Your task to perform on an android device: open wifi settings Image 0: 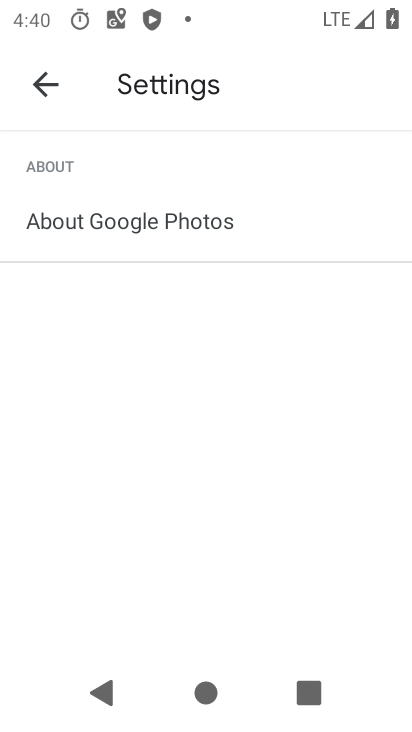
Step 0: press home button
Your task to perform on an android device: open wifi settings Image 1: 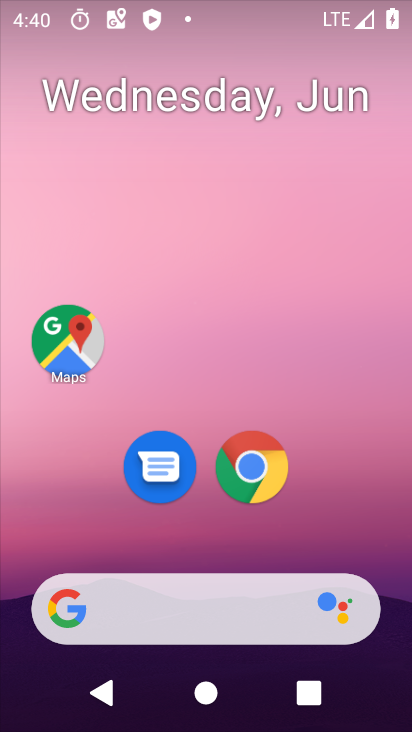
Step 1: drag from (333, 455) to (278, 32)
Your task to perform on an android device: open wifi settings Image 2: 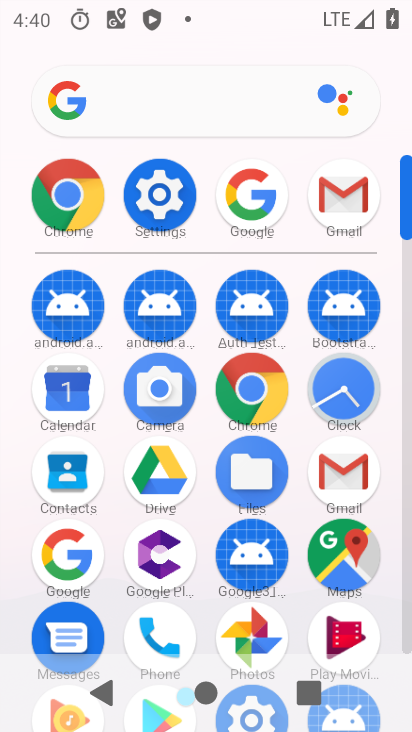
Step 2: click (179, 188)
Your task to perform on an android device: open wifi settings Image 3: 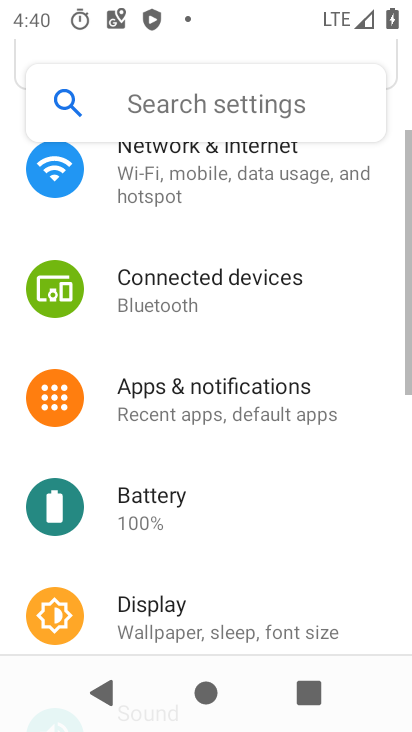
Step 3: drag from (260, 223) to (270, 565)
Your task to perform on an android device: open wifi settings Image 4: 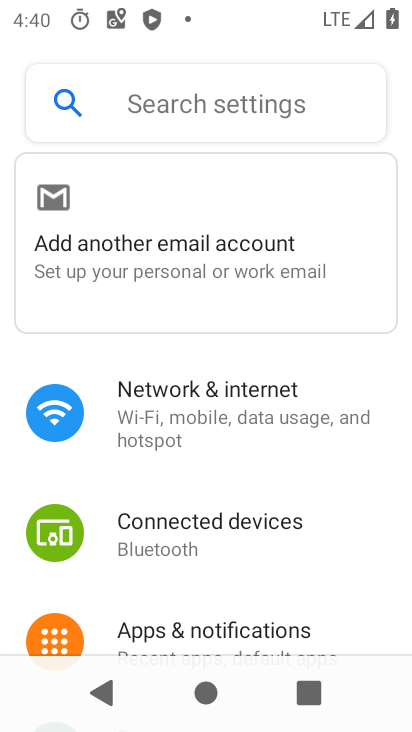
Step 4: click (209, 412)
Your task to perform on an android device: open wifi settings Image 5: 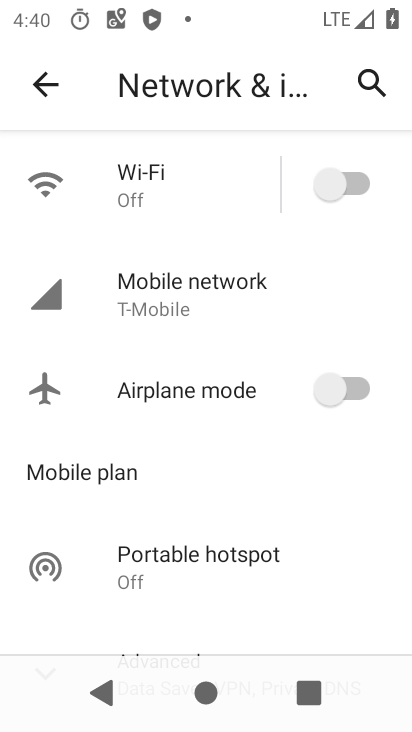
Step 5: click (219, 176)
Your task to perform on an android device: open wifi settings Image 6: 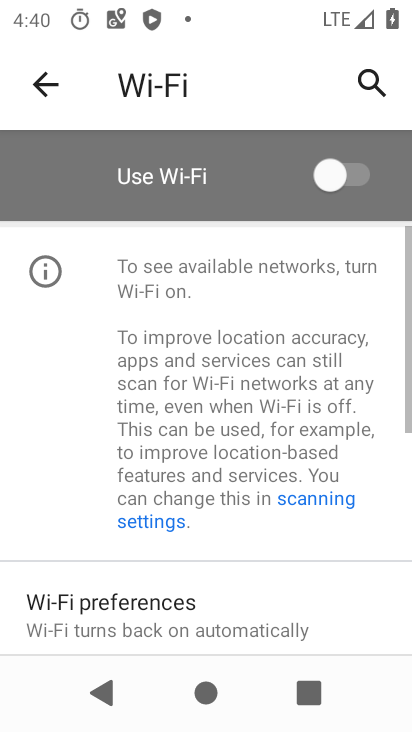
Step 6: task complete